Your task to perform on an android device: show emergency info Image 0: 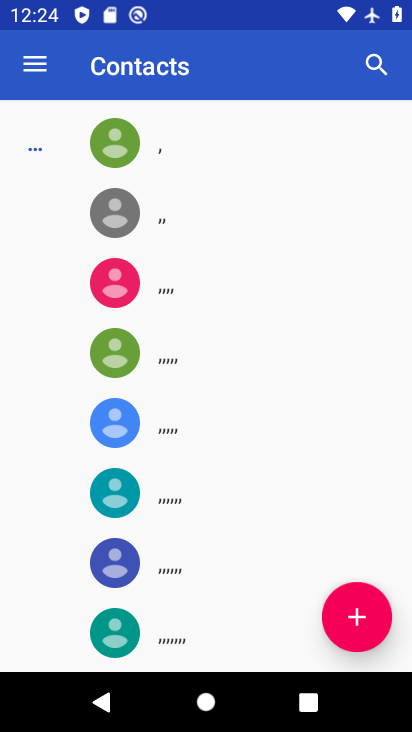
Step 0: press home button
Your task to perform on an android device: show emergency info Image 1: 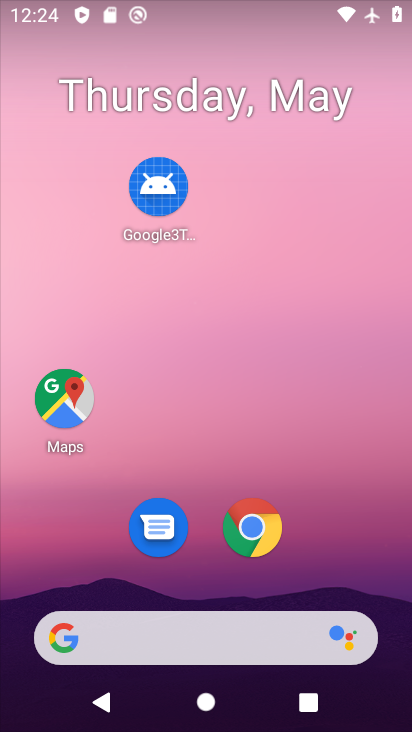
Step 1: drag from (220, 566) to (298, 194)
Your task to perform on an android device: show emergency info Image 2: 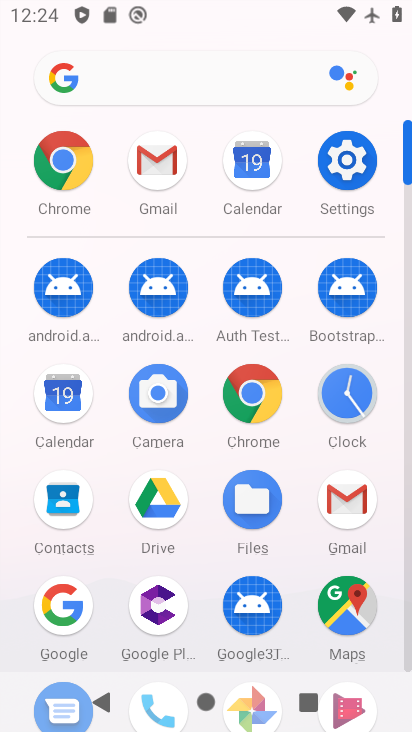
Step 2: click (338, 156)
Your task to perform on an android device: show emergency info Image 3: 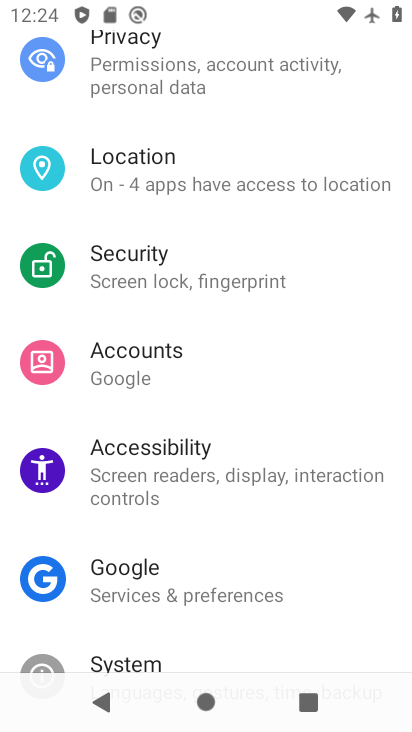
Step 3: drag from (219, 623) to (259, 111)
Your task to perform on an android device: show emergency info Image 4: 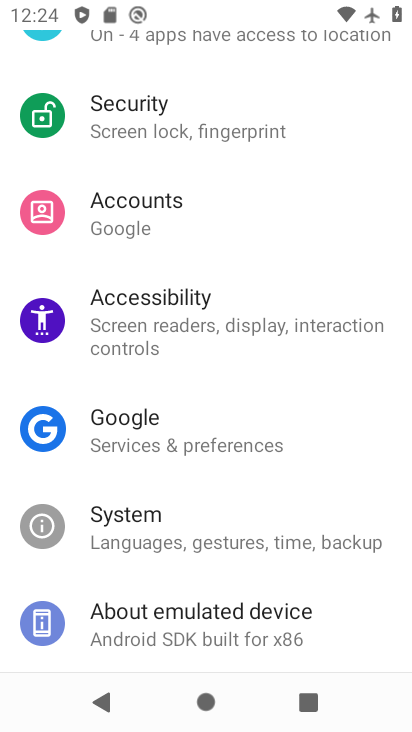
Step 4: click (257, 627)
Your task to perform on an android device: show emergency info Image 5: 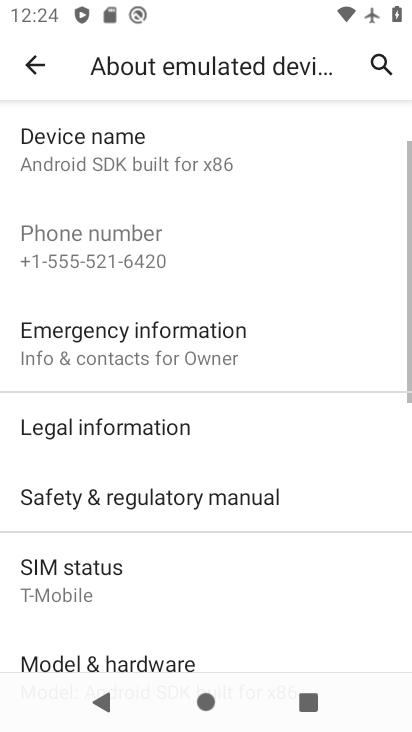
Step 5: click (258, 345)
Your task to perform on an android device: show emergency info Image 6: 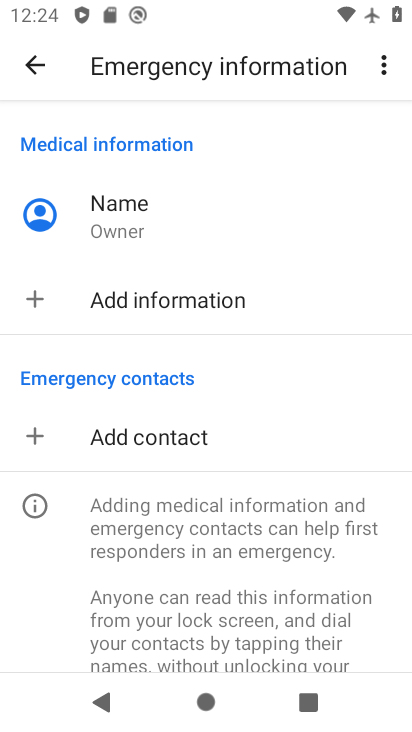
Step 6: task complete